Your task to perform on an android device: Check the news Image 0: 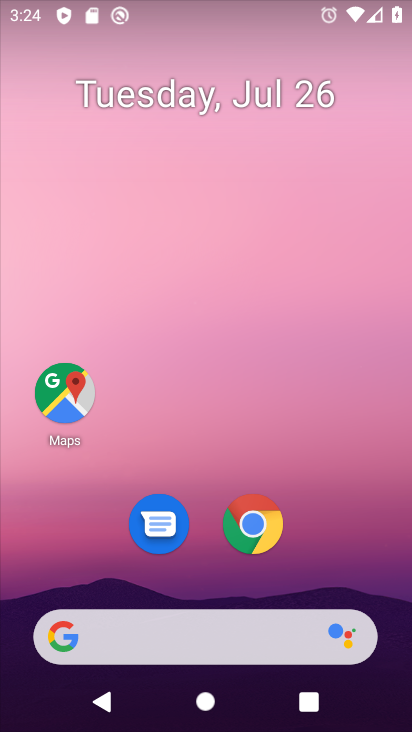
Step 0: click (236, 645)
Your task to perform on an android device: Check the news Image 1: 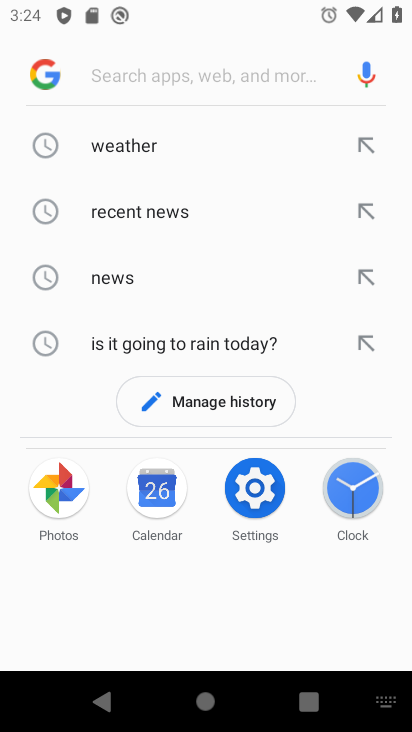
Step 1: click (119, 271)
Your task to perform on an android device: Check the news Image 2: 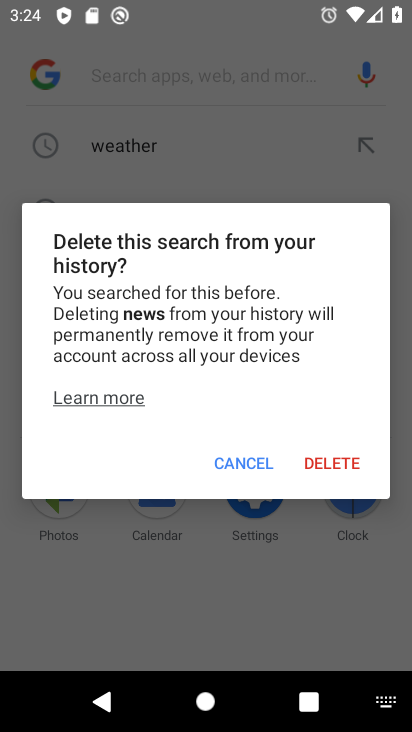
Step 2: click (259, 460)
Your task to perform on an android device: Check the news Image 3: 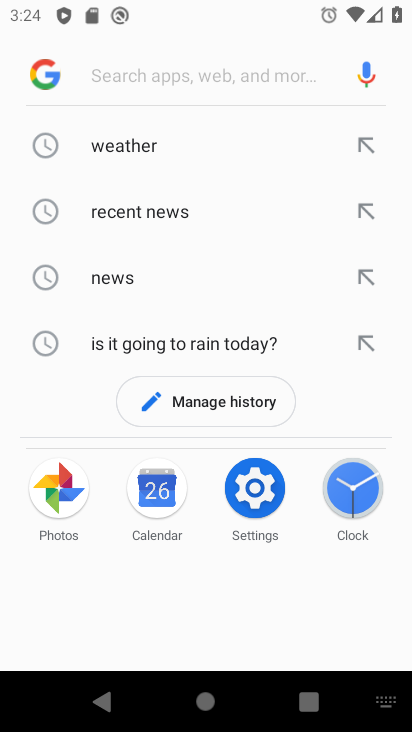
Step 3: click (367, 267)
Your task to perform on an android device: Check the news Image 4: 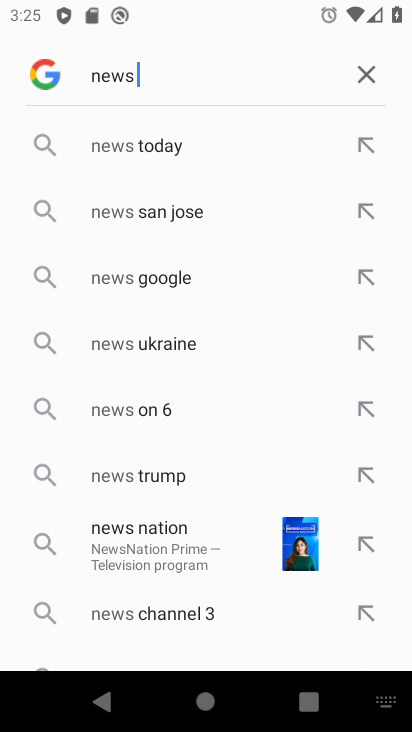
Step 4: click (140, 139)
Your task to perform on an android device: Check the news Image 5: 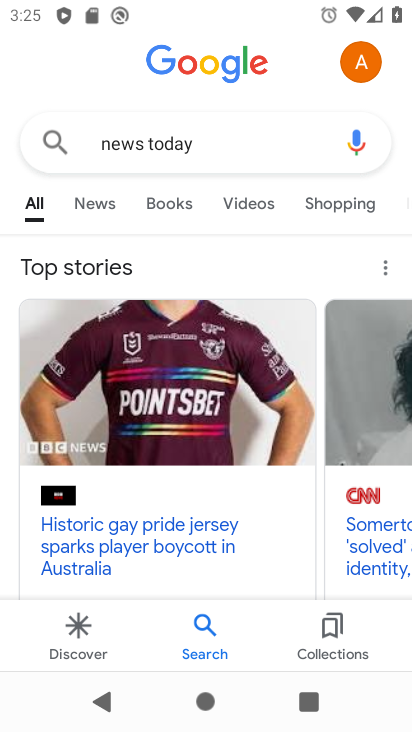
Step 5: drag from (197, 472) to (199, 431)
Your task to perform on an android device: Check the news Image 6: 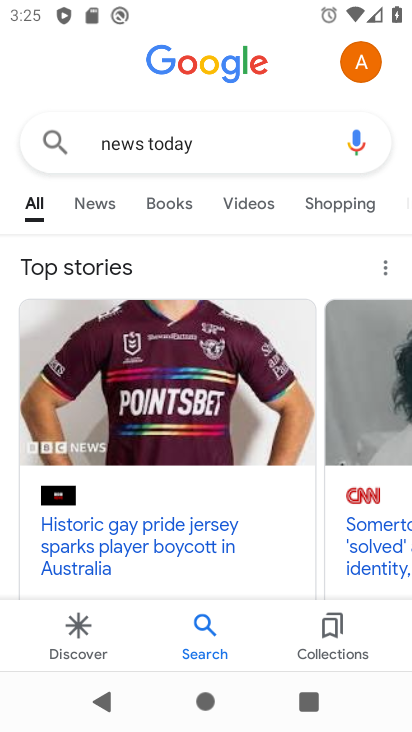
Step 6: click (207, 326)
Your task to perform on an android device: Check the news Image 7: 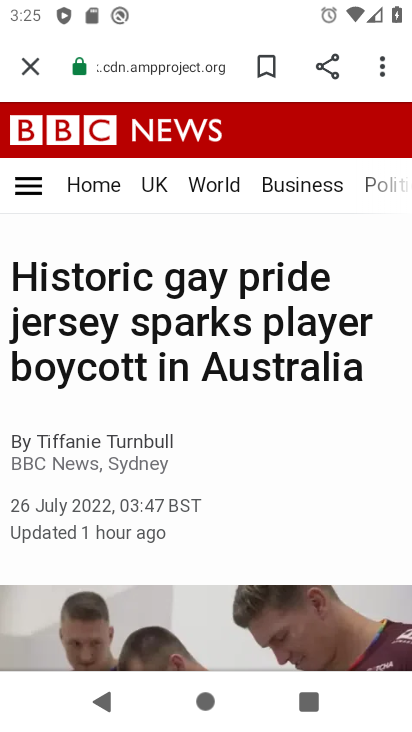
Step 7: drag from (237, 440) to (261, 117)
Your task to perform on an android device: Check the news Image 8: 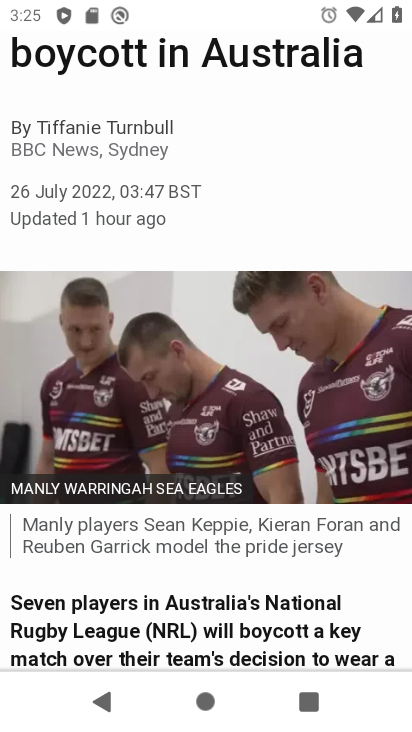
Step 8: drag from (213, 576) to (261, 256)
Your task to perform on an android device: Check the news Image 9: 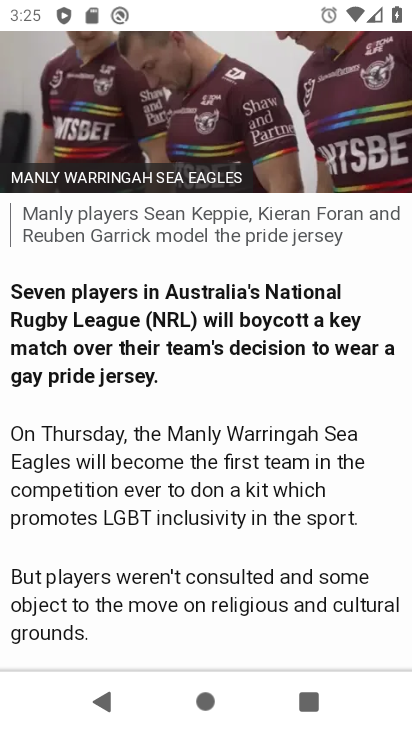
Step 9: drag from (230, 506) to (267, 177)
Your task to perform on an android device: Check the news Image 10: 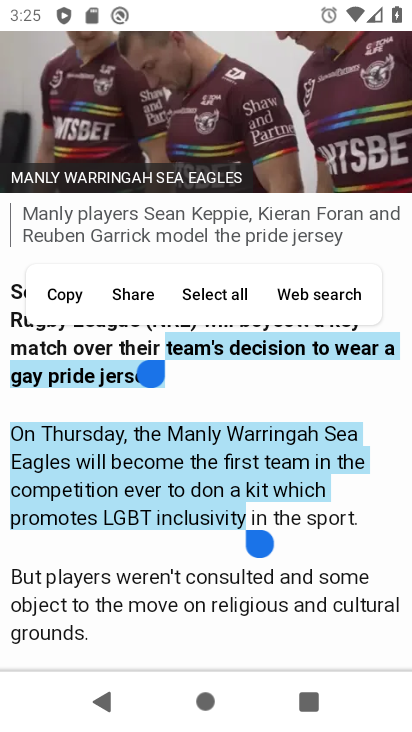
Step 10: click (297, 389)
Your task to perform on an android device: Check the news Image 11: 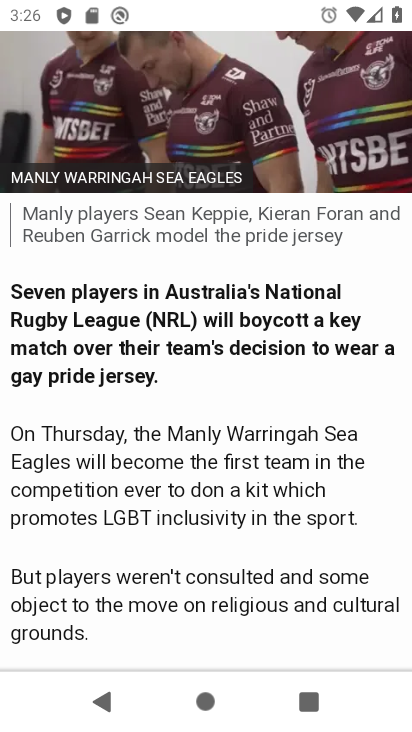
Step 11: task complete